Your task to perform on an android device: open the mobile data screen to see how much data has been used Image 0: 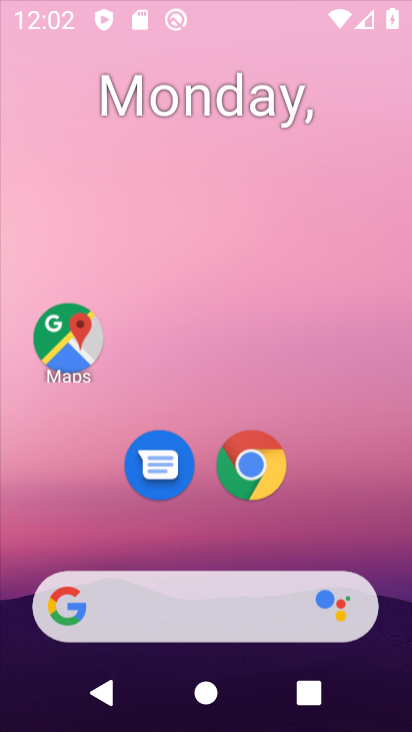
Step 0: press home button
Your task to perform on an android device: open the mobile data screen to see how much data has been used Image 1: 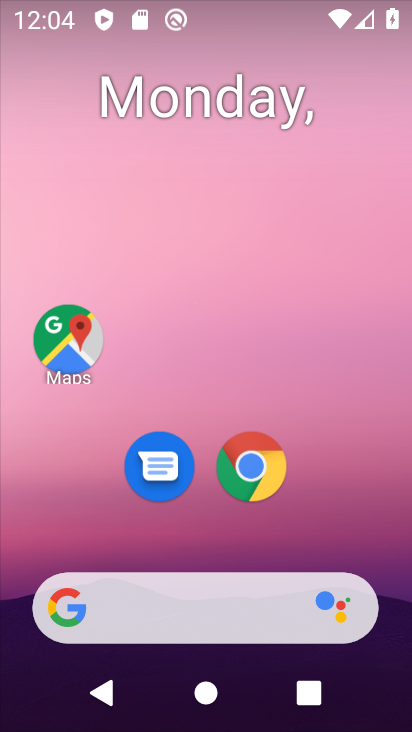
Step 1: drag from (273, 23) to (150, 705)
Your task to perform on an android device: open the mobile data screen to see how much data has been used Image 2: 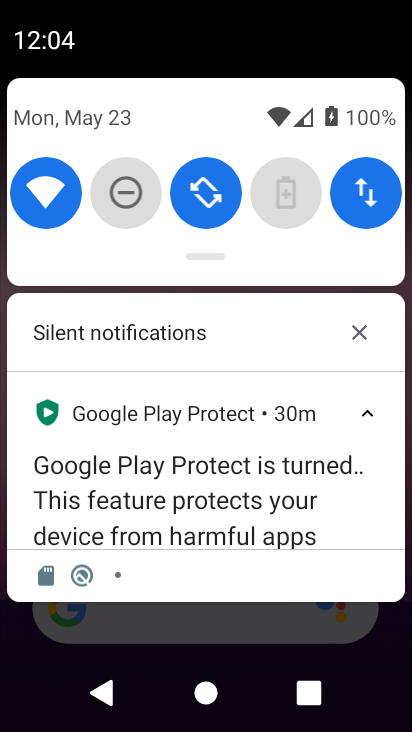
Step 2: click (360, 202)
Your task to perform on an android device: open the mobile data screen to see how much data has been used Image 3: 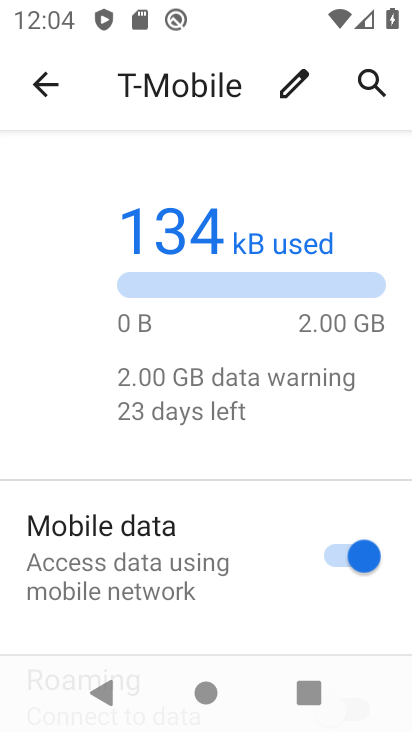
Step 3: task complete